Your task to perform on an android device: Clear all items from cart on amazon. Add usb-b to the cart on amazon Image 0: 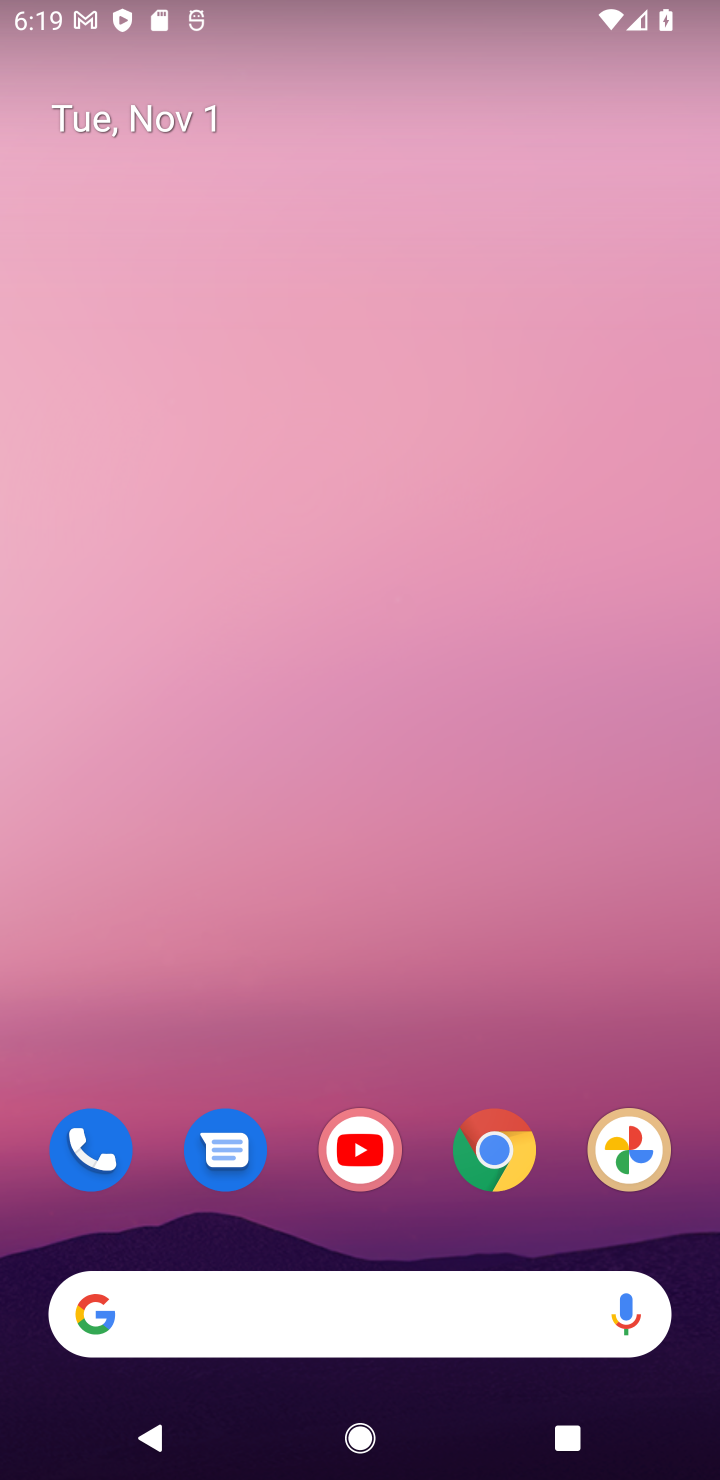
Step 0: click (511, 1113)
Your task to perform on an android device: Clear all items from cart on amazon. Add usb-b to the cart on amazon Image 1: 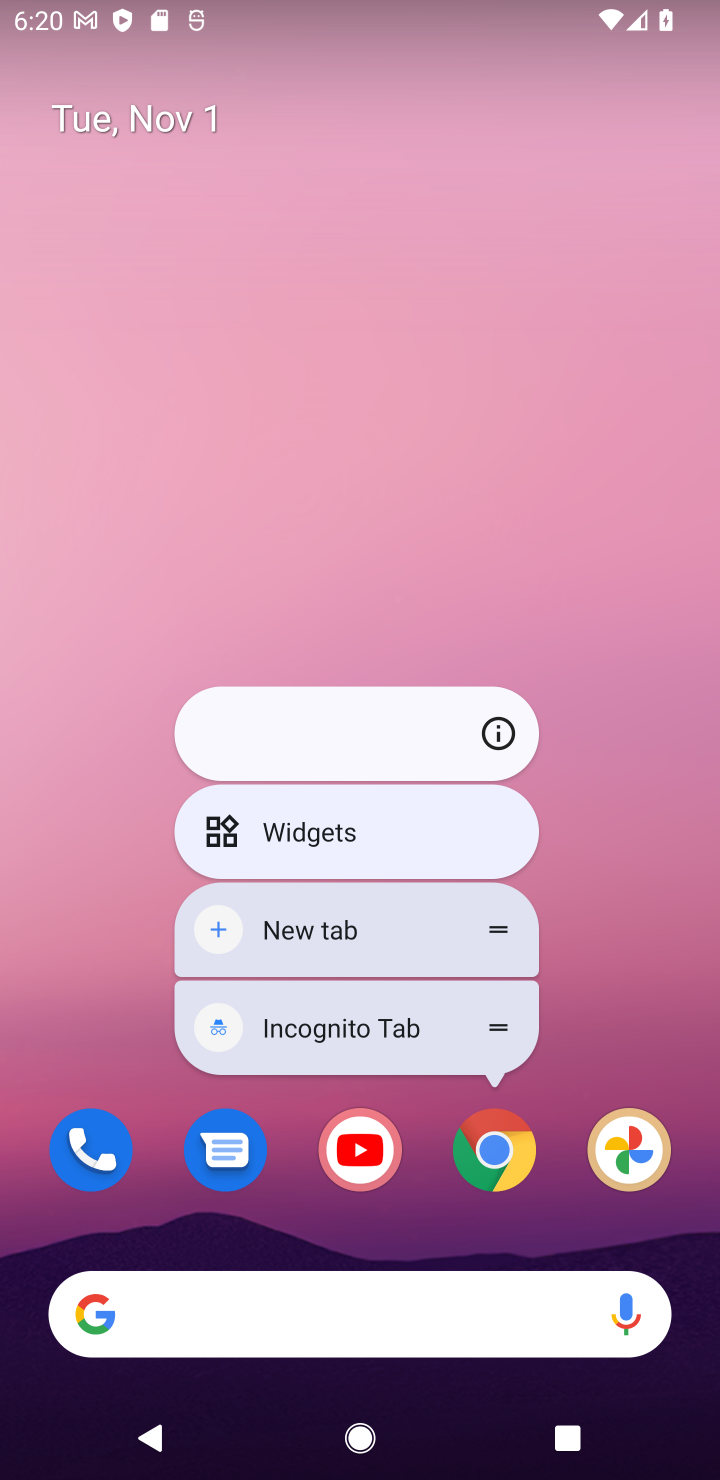
Step 1: click (488, 1158)
Your task to perform on an android device: Clear all items from cart on amazon. Add usb-b to the cart on amazon Image 2: 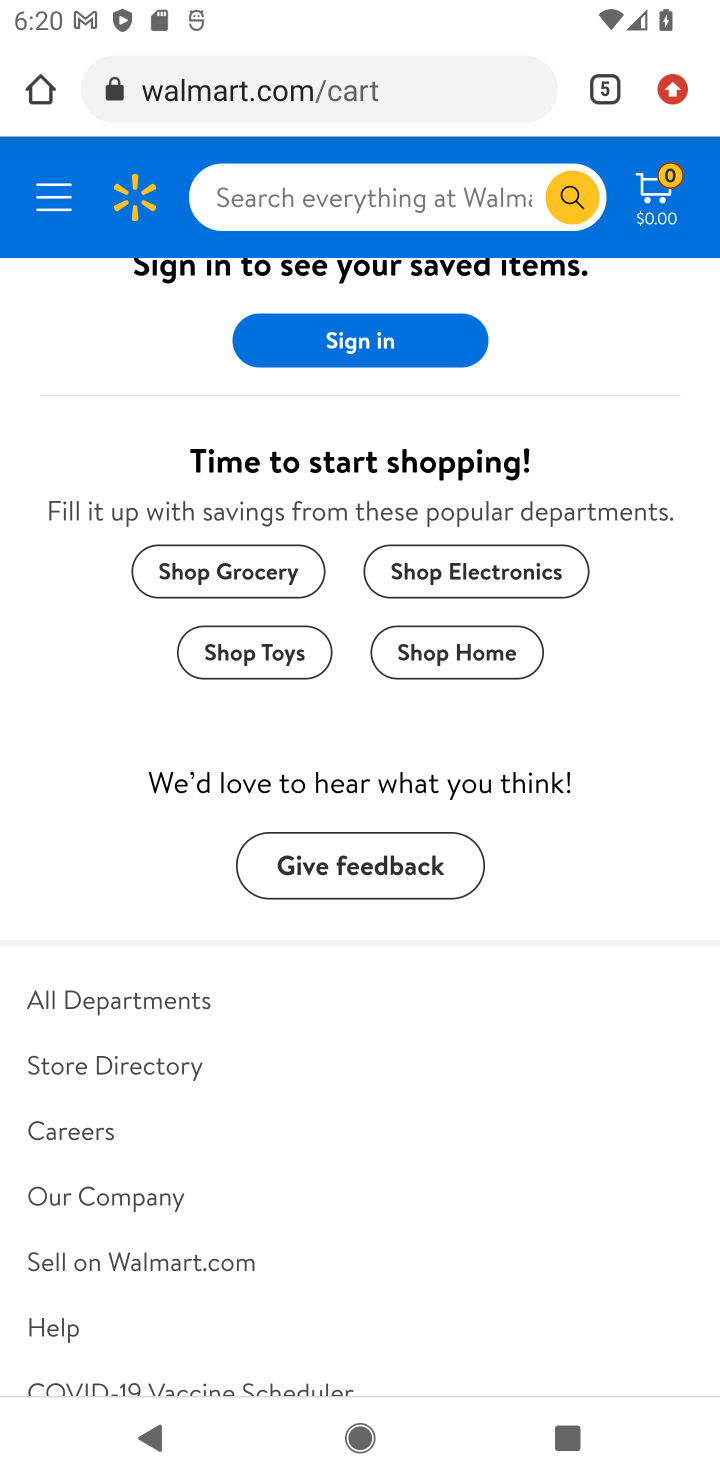
Step 2: click (607, 92)
Your task to perform on an android device: Clear all items from cart on amazon. Add usb-b to the cart on amazon Image 3: 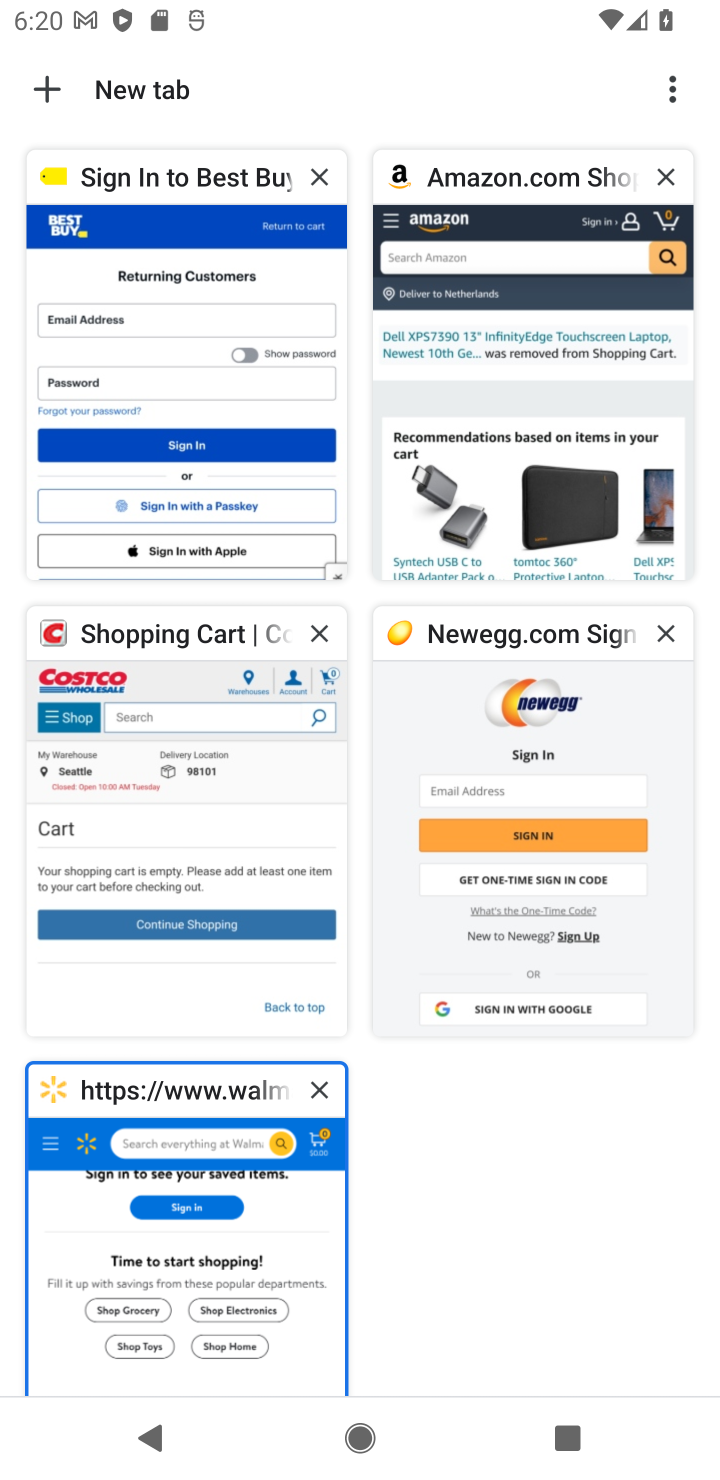
Step 3: click (607, 92)
Your task to perform on an android device: Clear all items from cart on amazon. Add usb-b to the cart on amazon Image 4: 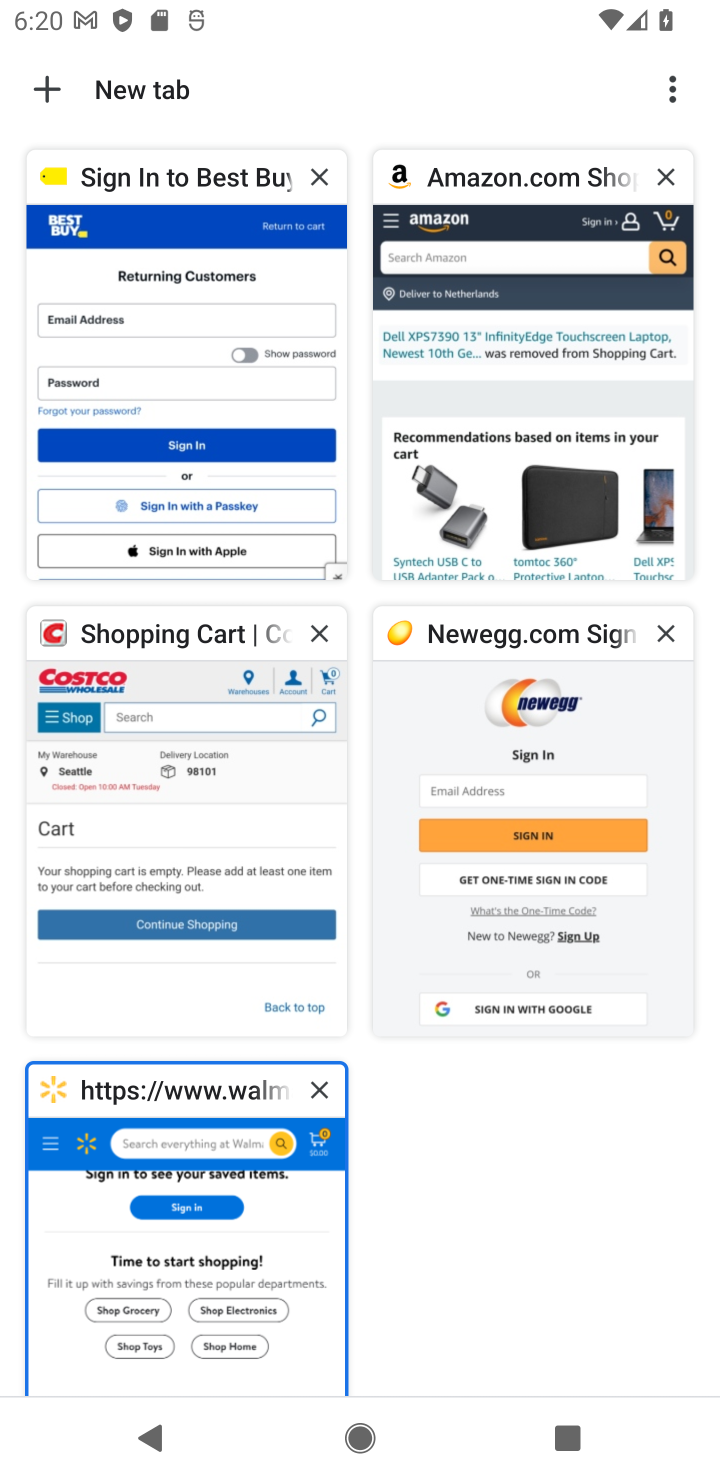
Step 4: click (529, 318)
Your task to perform on an android device: Clear all items from cart on amazon. Add usb-b to the cart on amazon Image 5: 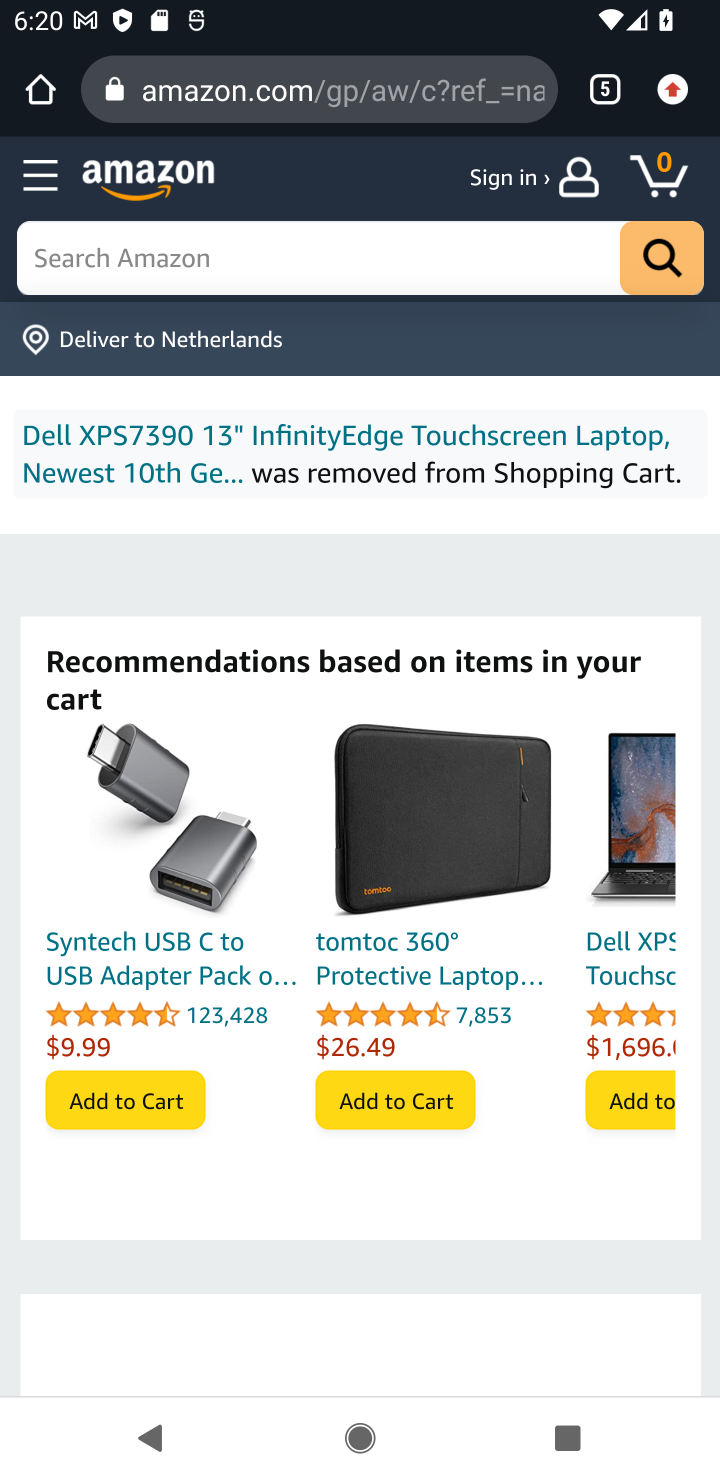
Step 5: click (348, 257)
Your task to perform on an android device: Clear all items from cart on amazon. Add usb-b to the cart on amazon Image 6: 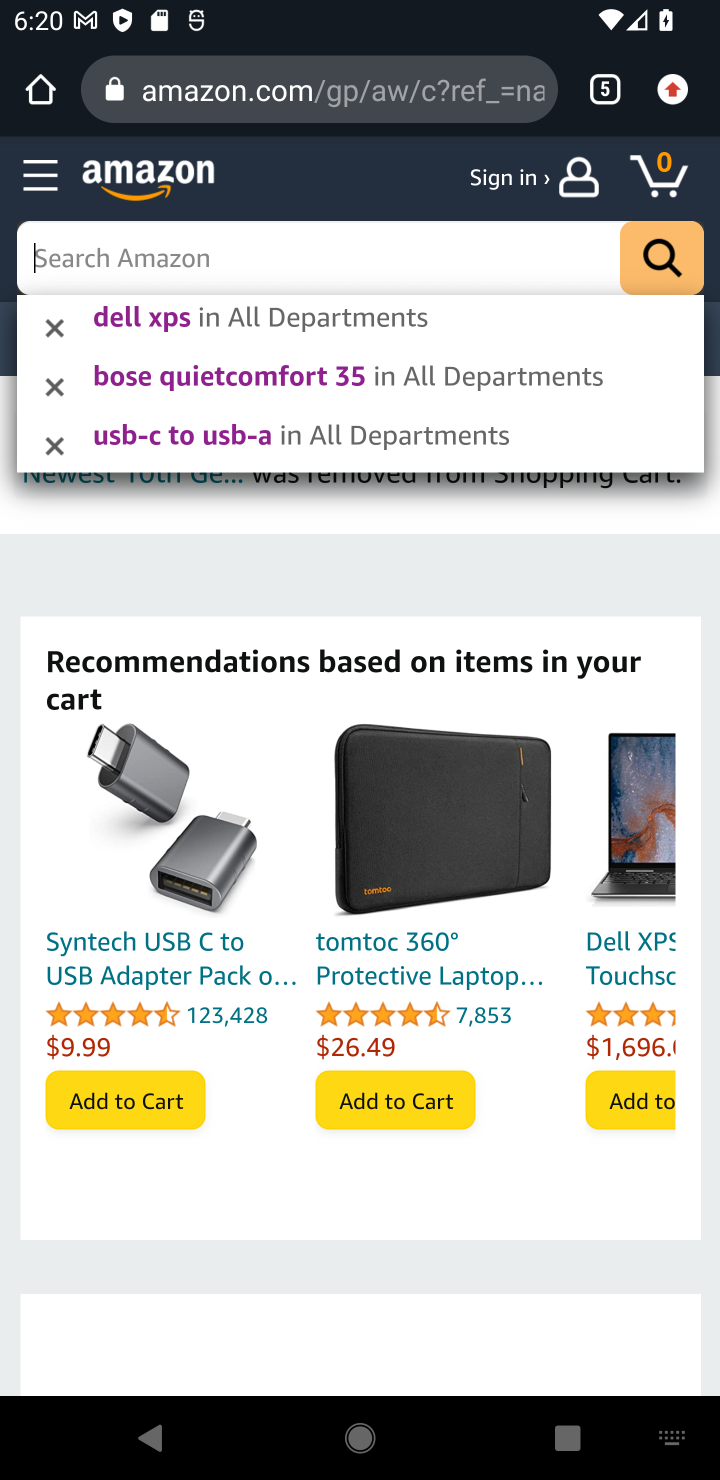
Step 6: type "usb-b"
Your task to perform on an android device: Clear all items from cart on amazon. Add usb-b to the cart on amazon Image 7: 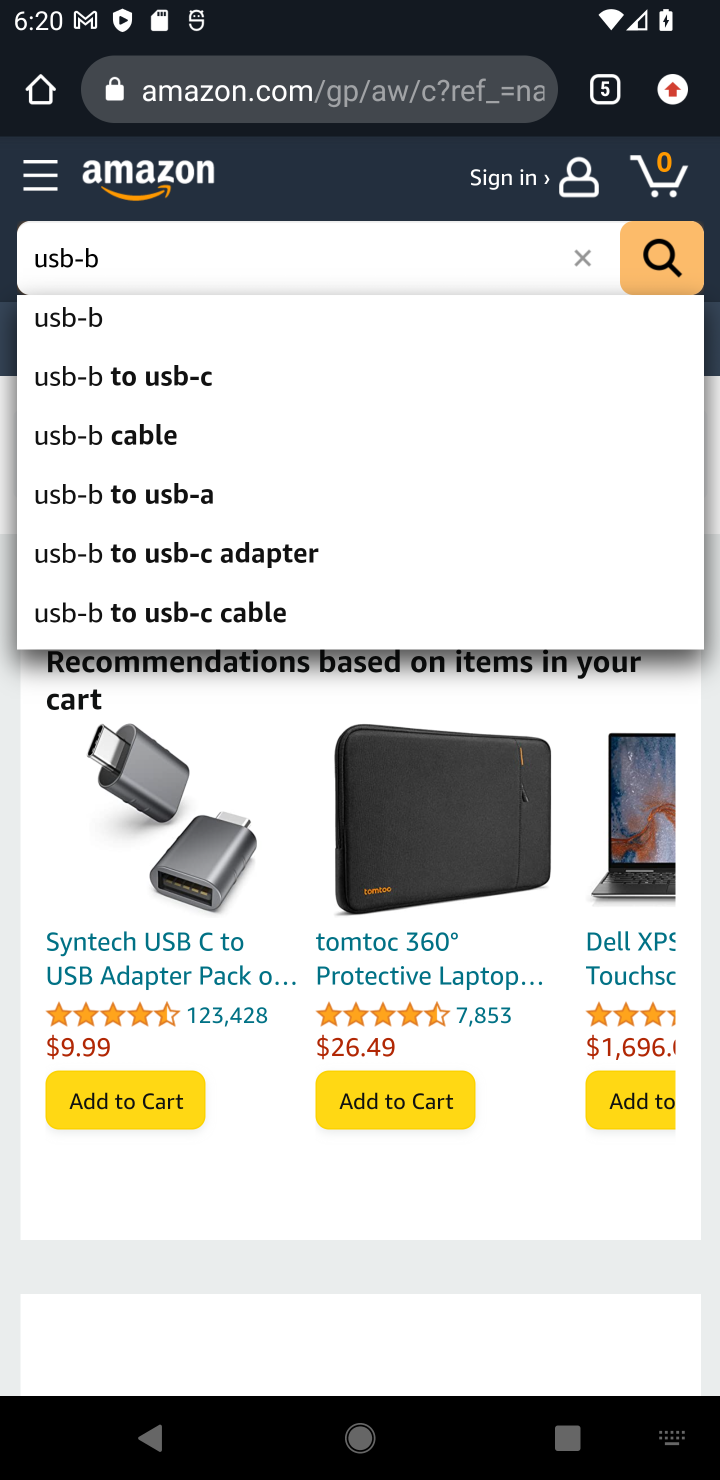
Step 7: click (96, 313)
Your task to perform on an android device: Clear all items from cart on amazon. Add usb-b to the cart on amazon Image 8: 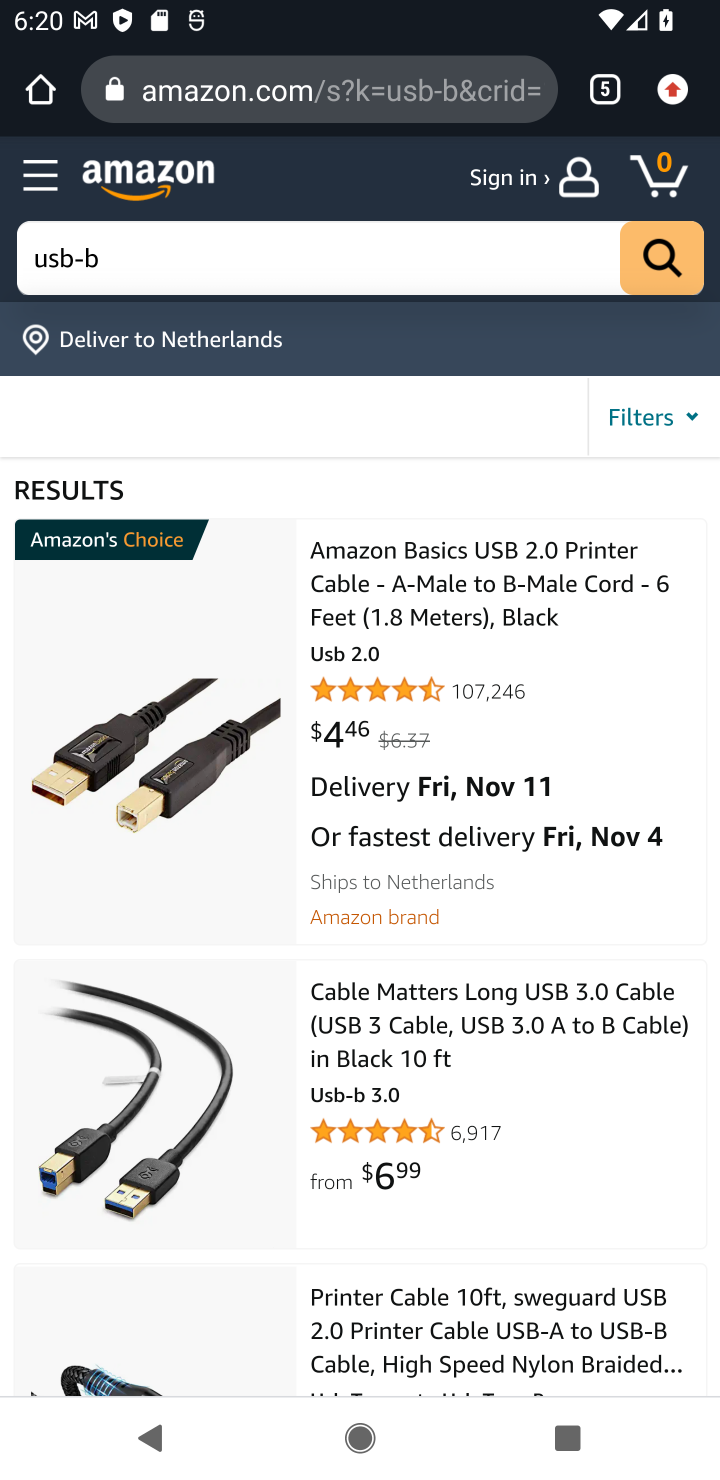
Step 8: click (445, 588)
Your task to perform on an android device: Clear all items from cart on amazon. Add usb-b to the cart on amazon Image 9: 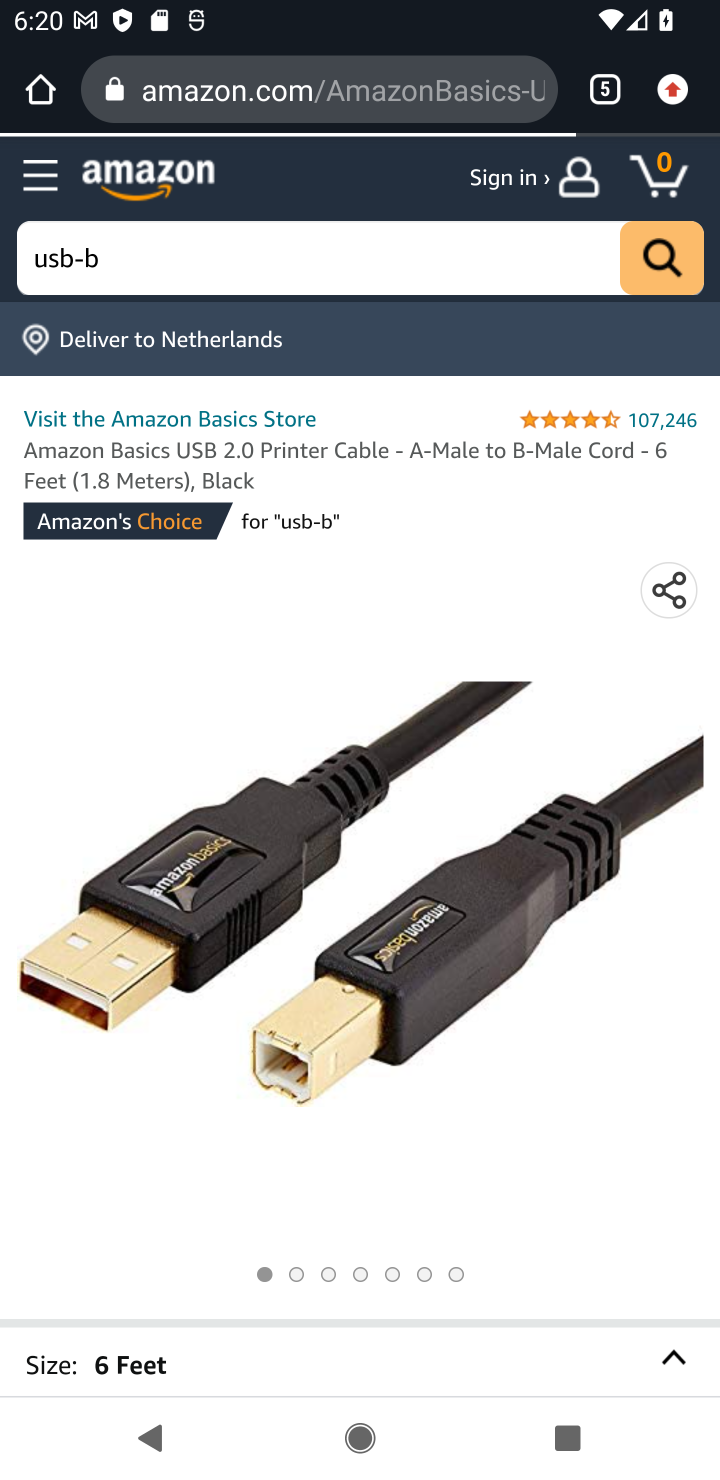
Step 9: drag from (408, 1216) to (578, 424)
Your task to perform on an android device: Clear all items from cart on amazon. Add usb-b to the cart on amazon Image 10: 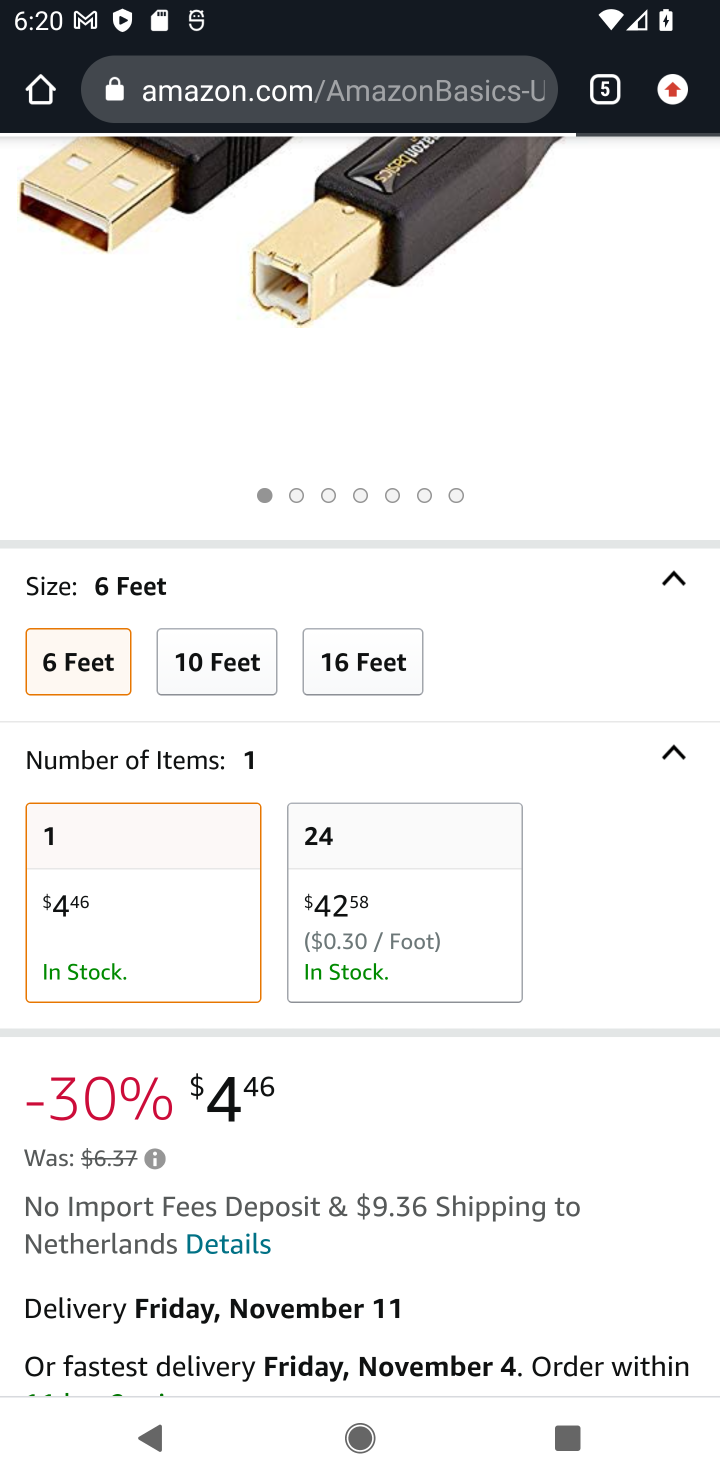
Step 10: drag from (421, 1205) to (685, 391)
Your task to perform on an android device: Clear all items from cart on amazon. Add usb-b to the cart on amazon Image 11: 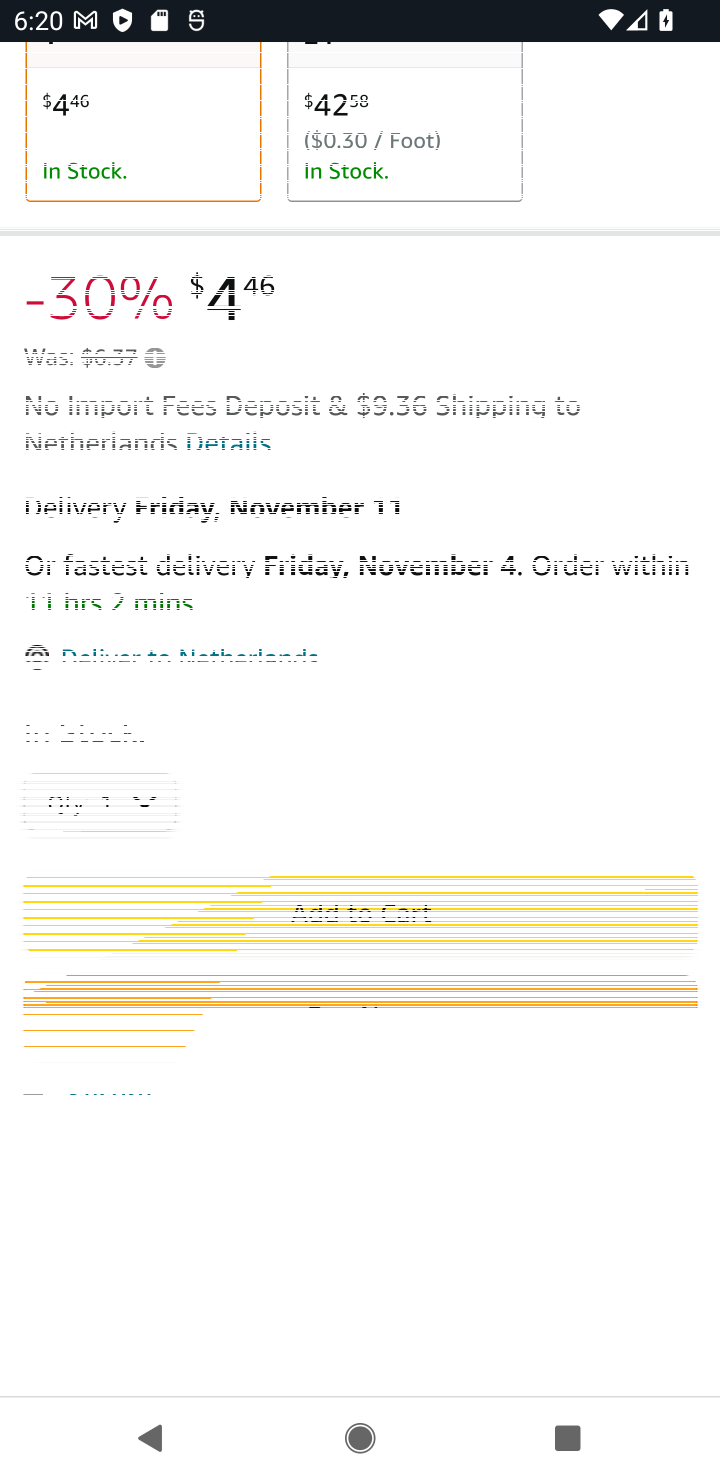
Step 11: click (419, 913)
Your task to perform on an android device: Clear all items from cart on amazon. Add usb-b to the cart on amazon Image 12: 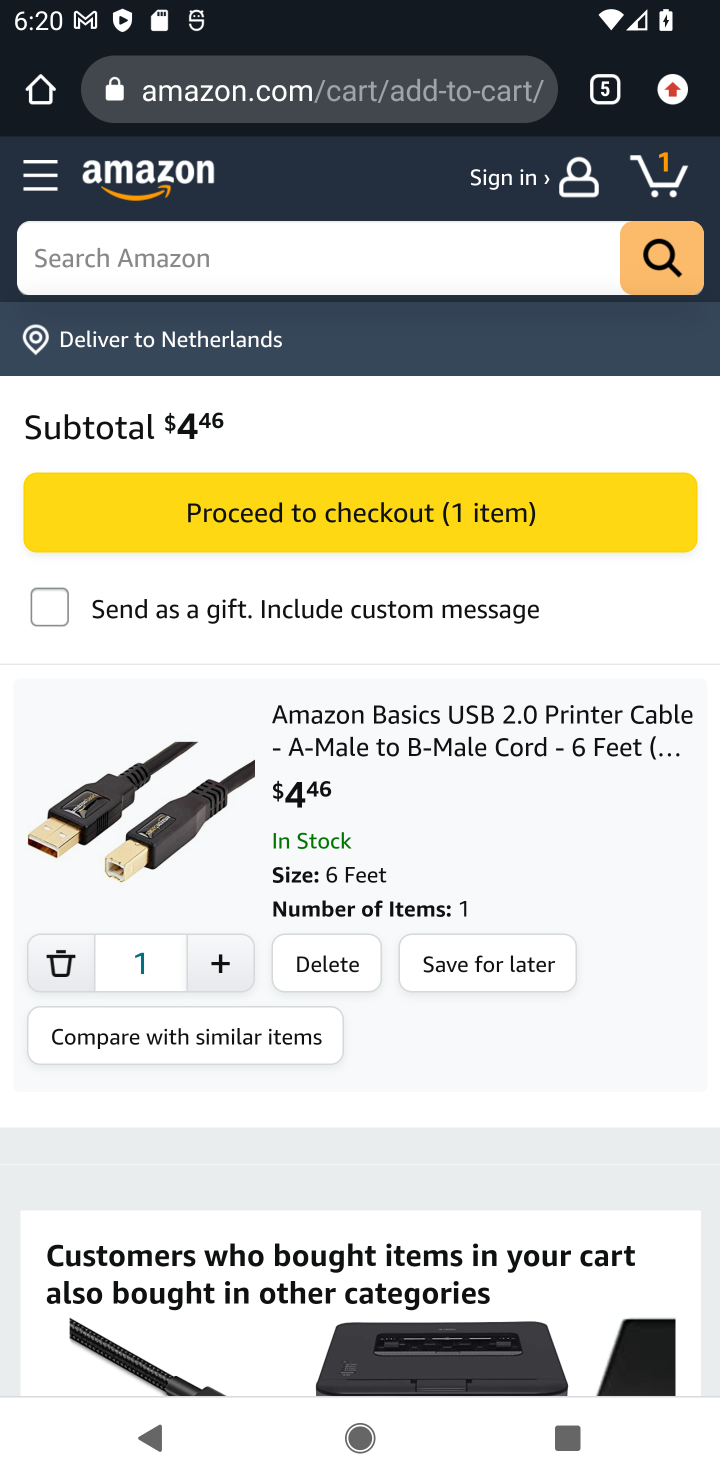
Step 12: task complete